Your task to perform on an android device: open sync settings in chrome Image 0: 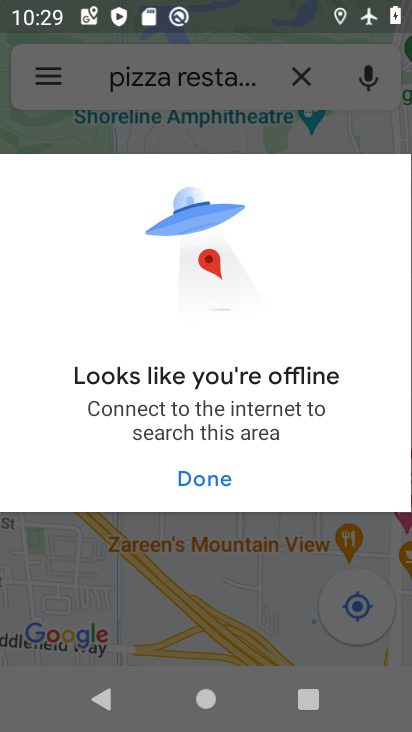
Step 0: press home button
Your task to perform on an android device: open sync settings in chrome Image 1: 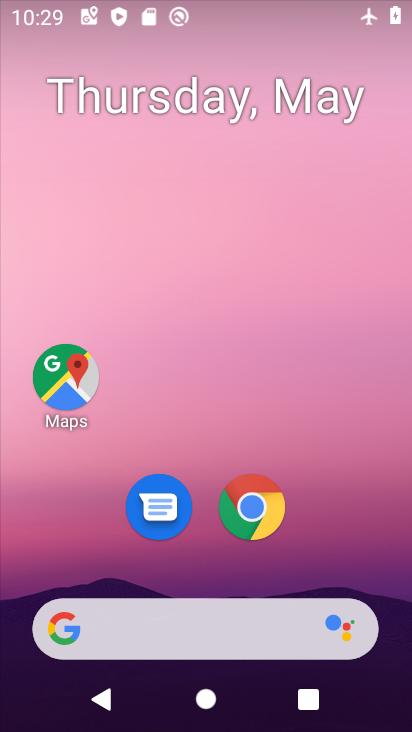
Step 1: drag from (199, 591) to (239, 108)
Your task to perform on an android device: open sync settings in chrome Image 2: 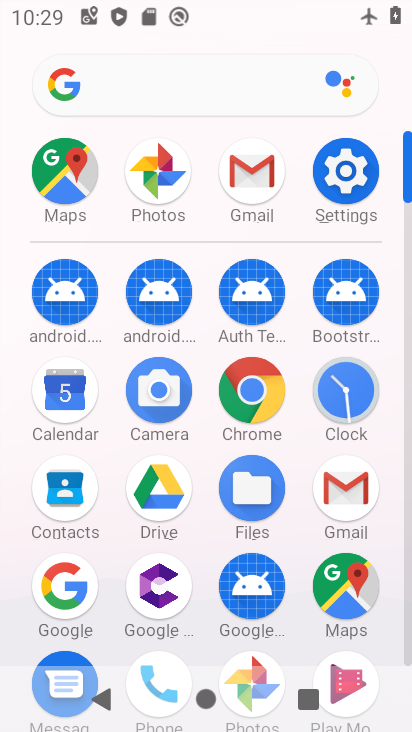
Step 2: click (259, 428)
Your task to perform on an android device: open sync settings in chrome Image 3: 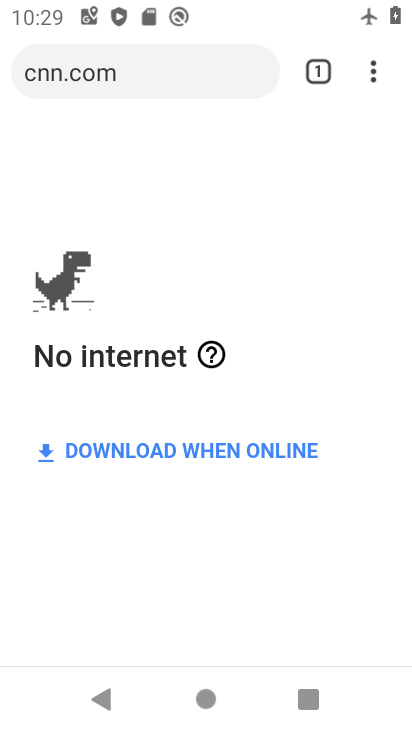
Step 3: click (385, 84)
Your task to perform on an android device: open sync settings in chrome Image 4: 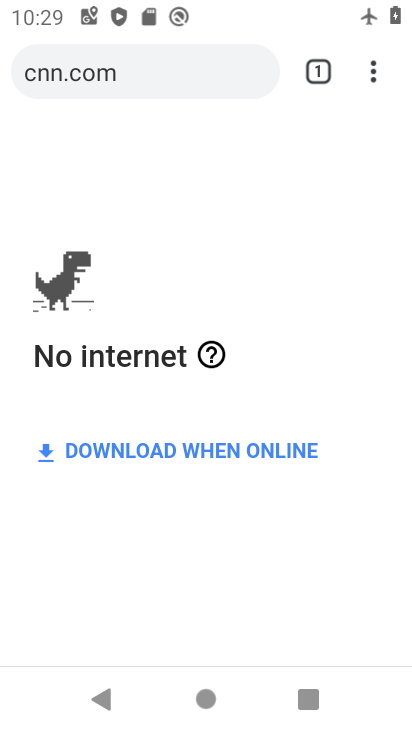
Step 4: click (374, 79)
Your task to perform on an android device: open sync settings in chrome Image 5: 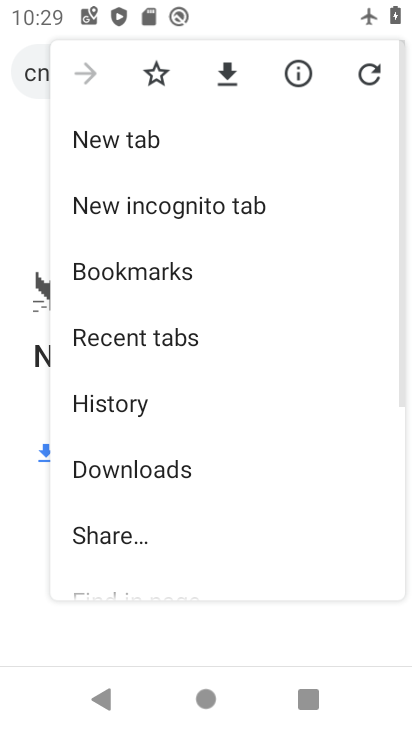
Step 5: drag from (216, 439) to (38, 479)
Your task to perform on an android device: open sync settings in chrome Image 6: 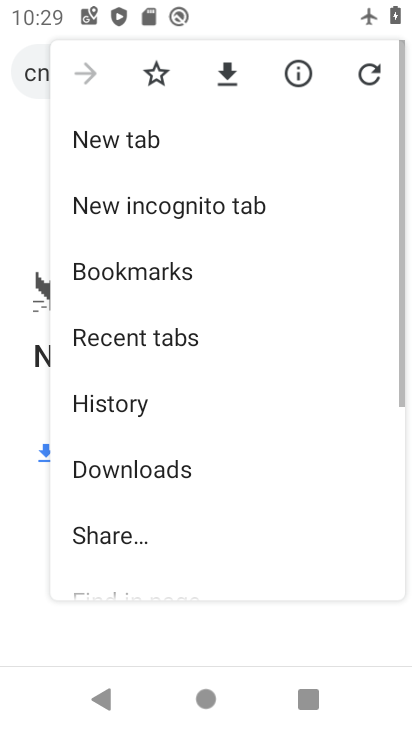
Step 6: click (167, 514)
Your task to perform on an android device: open sync settings in chrome Image 7: 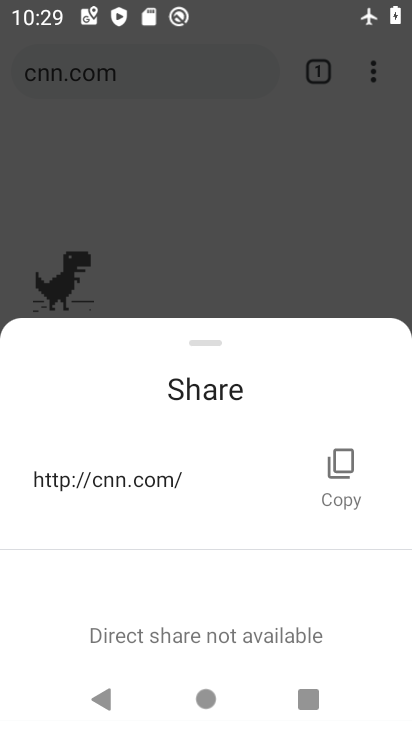
Step 7: click (235, 189)
Your task to perform on an android device: open sync settings in chrome Image 8: 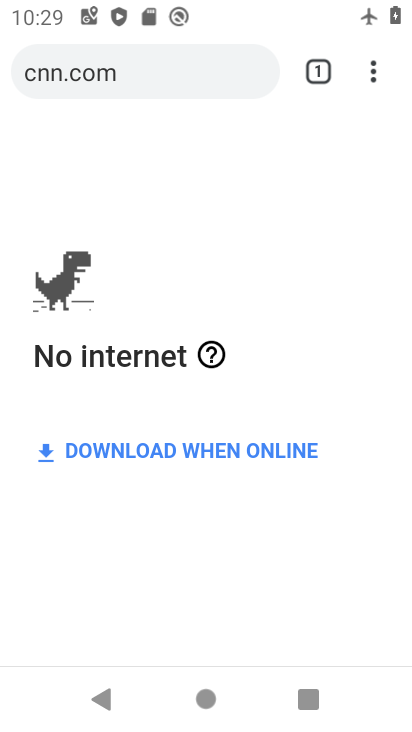
Step 8: click (374, 80)
Your task to perform on an android device: open sync settings in chrome Image 9: 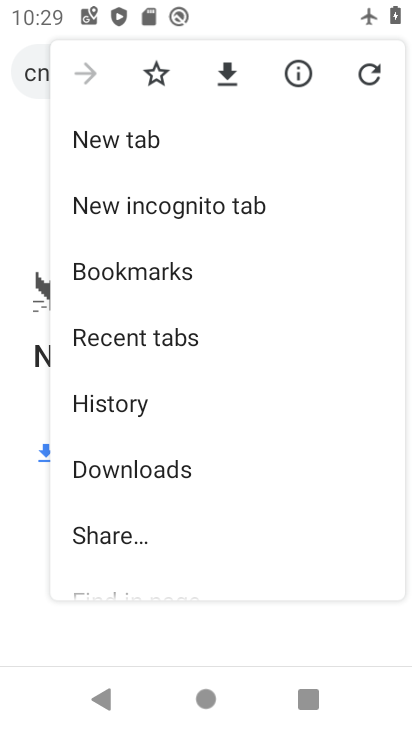
Step 9: drag from (205, 521) to (267, 52)
Your task to perform on an android device: open sync settings in chrome Image 10: 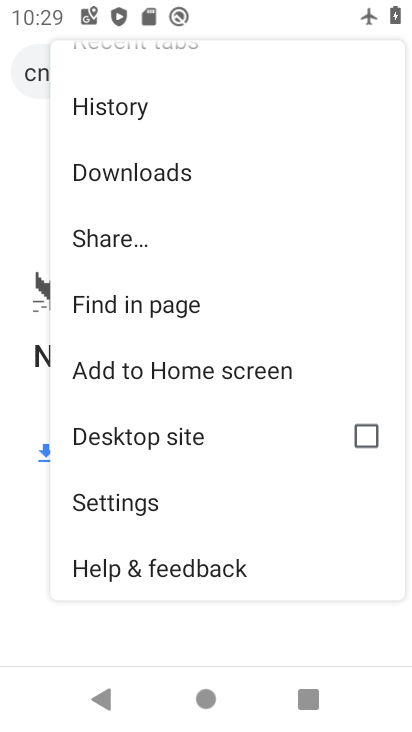
Step 10: click (229, 496)
Your task to perform on an android device: open sync settings in chrome Image 11: 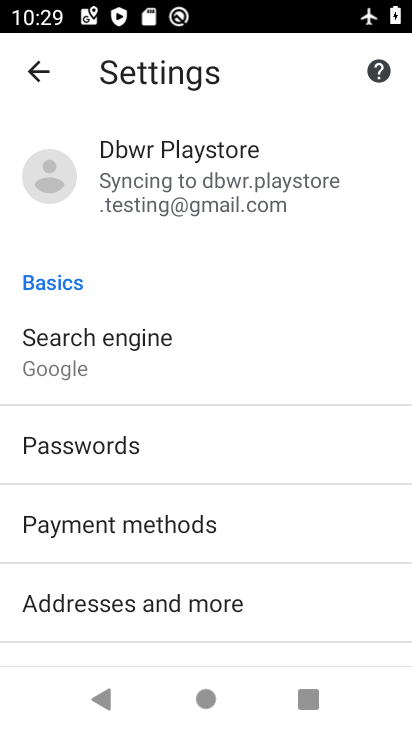
Step 11: click (215, 198)
Your task to perform on an android device: open sync settings in chrome Image 12: 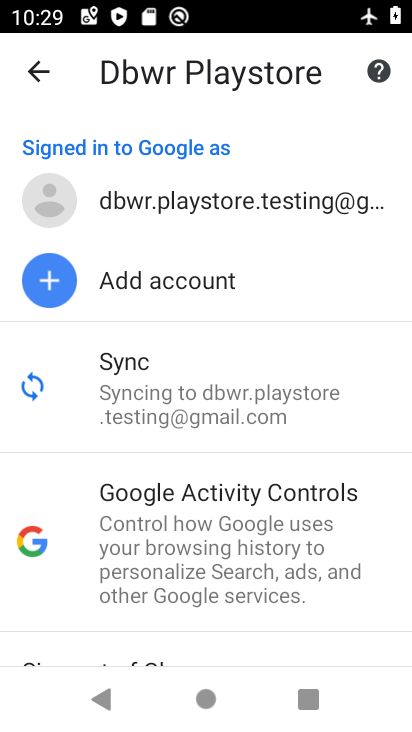
Step 12: click (175, 412)
Your task to perform on an android device: open sync settings in chrome Image 13: 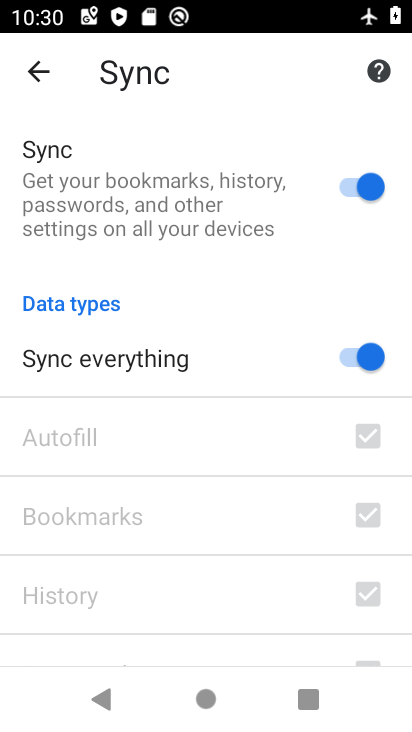
Step 13: task complete